Your task to perform on an android device: check storage Image 0: 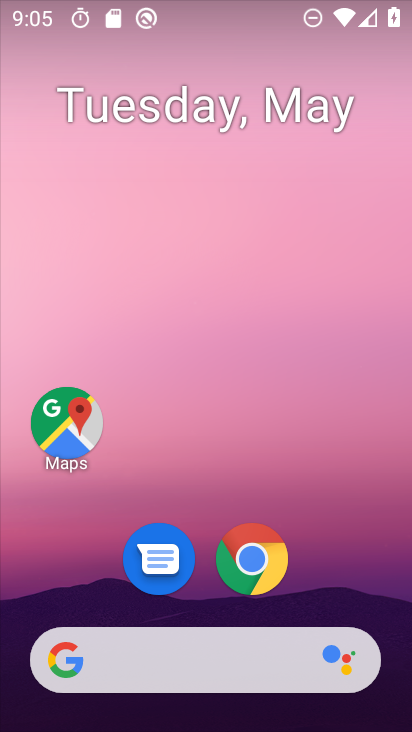
Step 0: drag from (392, 634) to (265, 59)
Your task to perform on an android device: check storage Image 1: 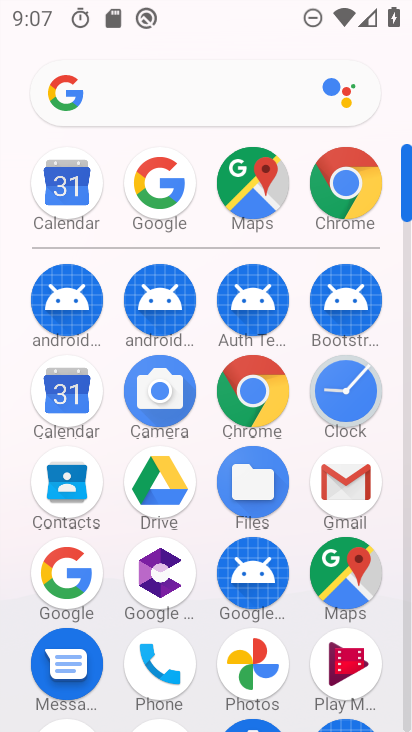
Step 1: drag from (194, 632) to (167, 140)
Your task to perform on an android device: check storage Image 2: 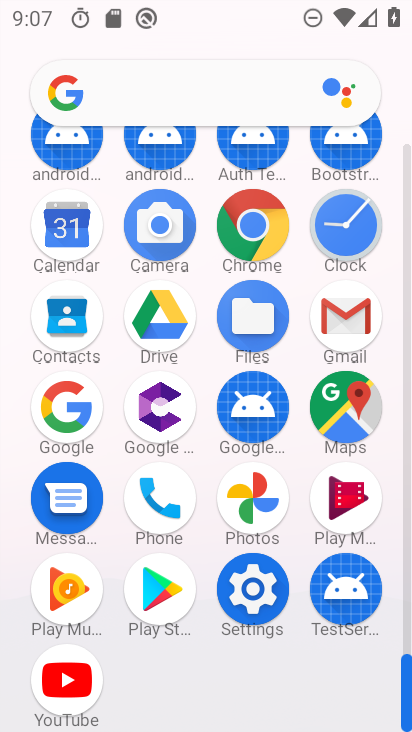
Step 2: click (239, 597)
Your task to perform on an android device: check storage Image 3: 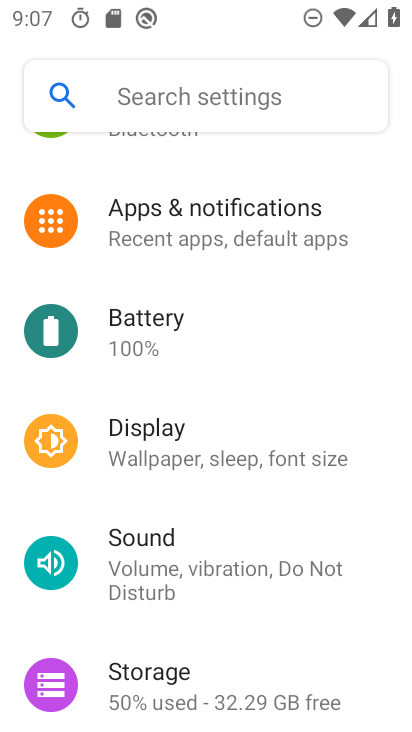
Step 3: click (169, 690)
Your task to perform on an android device: check storage Image 4: 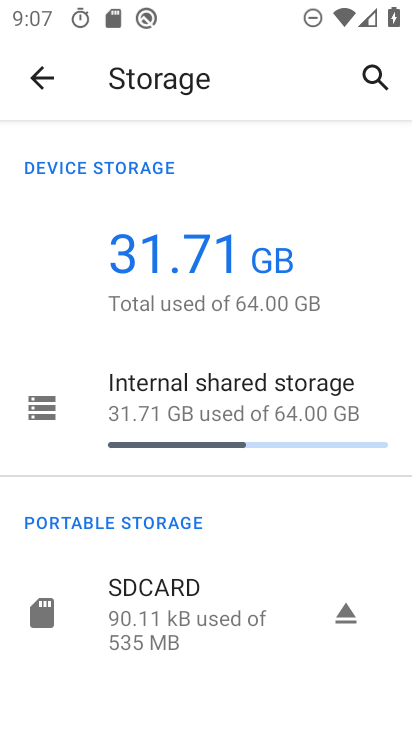
Step 4: click (205, 381)
Your task to perform on an android device: check storage Image 5: 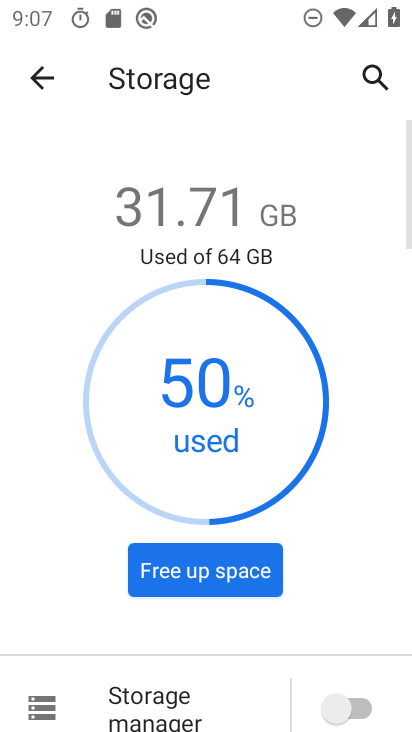
Step 5: task complete